Your task to perform on an android device: Open Google Chrome Image 0: 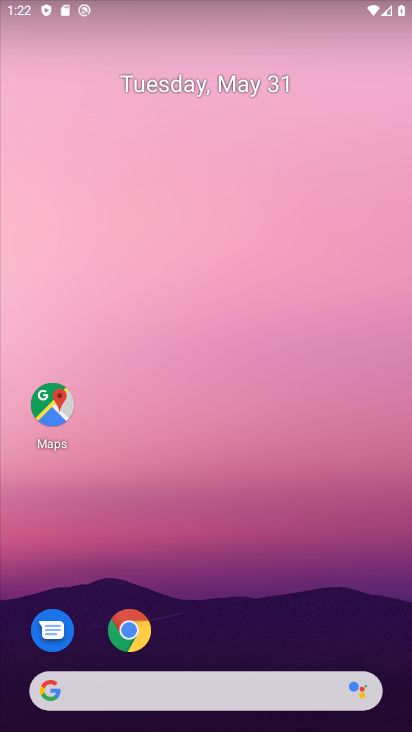
Step 0: drag from (345, 626) to (238, 30)
Your task to perform on an android device: Open Google Chrome Image 1: 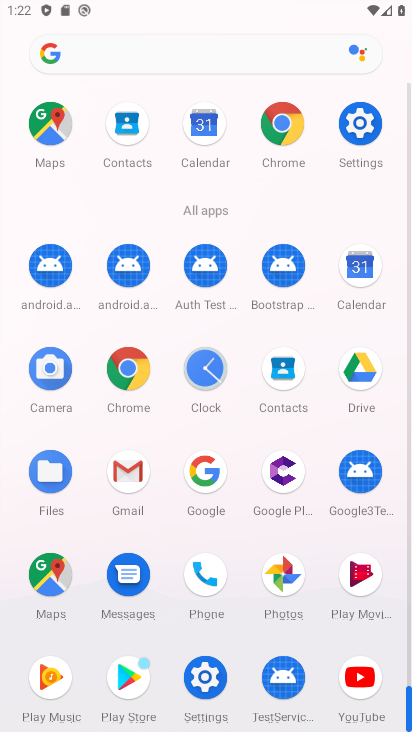
Step 1: drag from (1, 289) to (4, 171)
Your task to perform on an android device: Open Google Chrome Image 2: 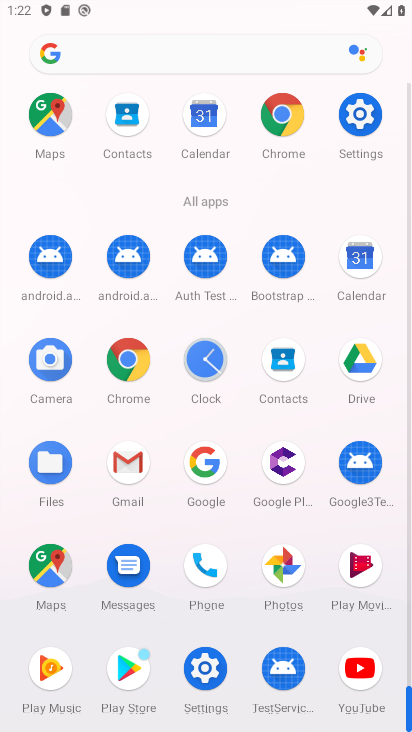
Step 2: click (124, 357)
Your task to perform on an android device: Open Google Chrome Image 3: 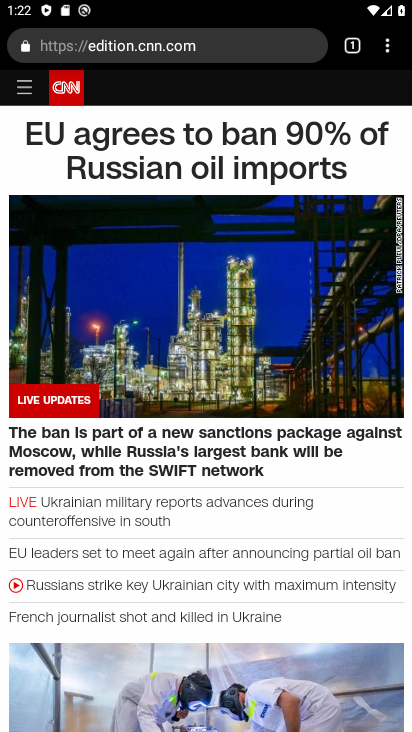
Step 3: task complete